Your task to perform on an android device: turn on bluetooth scan Image 0: 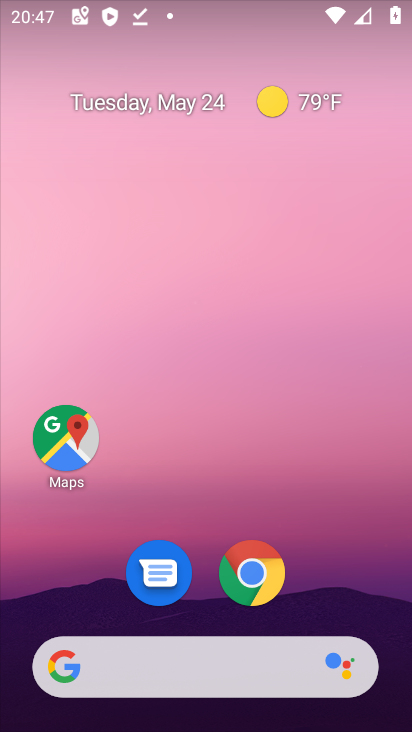
Step 0: drag from (291, 666) to (127, 172)
Your task to perform on an android device: turn on bluetooth scan Image 1: 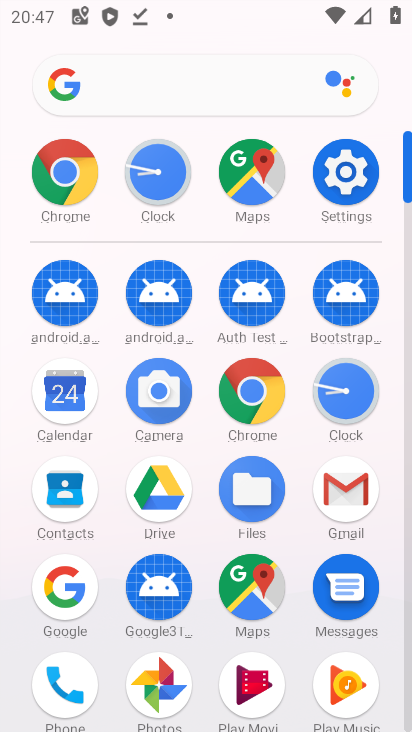
Step 1: click (334, 188)
Your task to perform on an android device: turn on bluetooth scan Image 2: 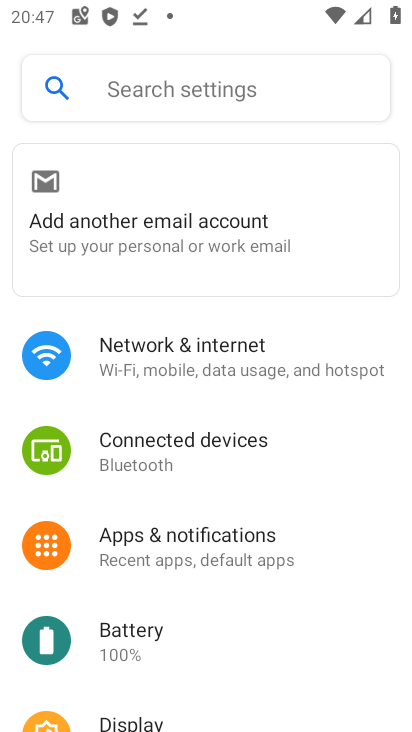
Step 2: press back button
Your task to perform on an android device: turn on bluetooth scan Image 3: 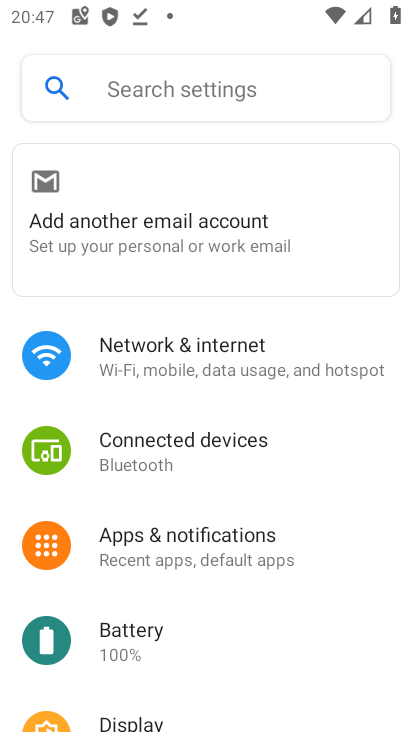
Step 3: press back button
Your task to perform on an android device: turn on bluetooth scan Image 4: 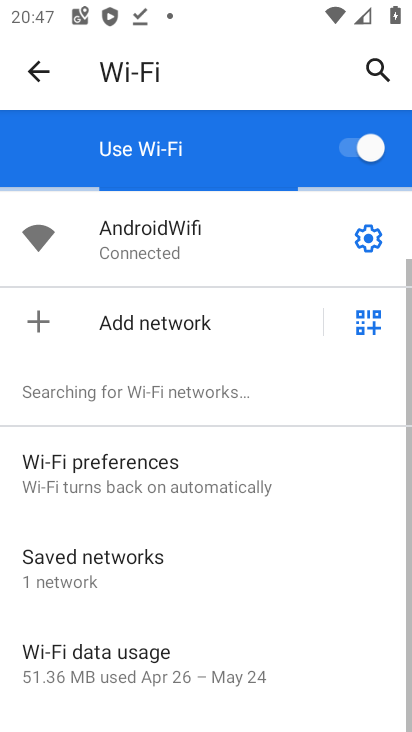
Step 4: press back button
Your task to perform on an android device: turn on bluetooth scan Image 5: 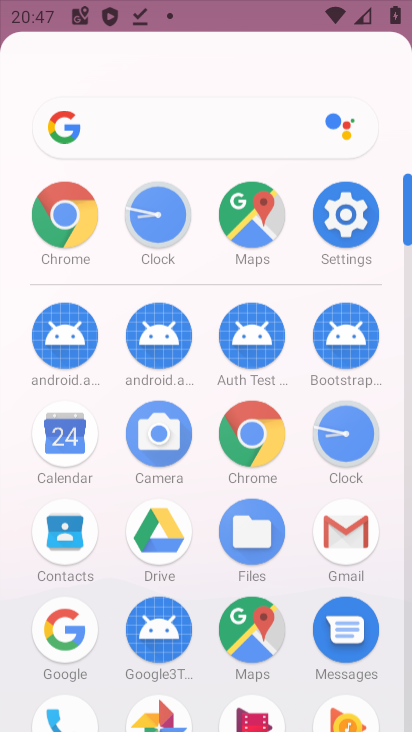
Step 5: press back button
Your task to perform on an android device: turn on bluetooth scan Image 6: 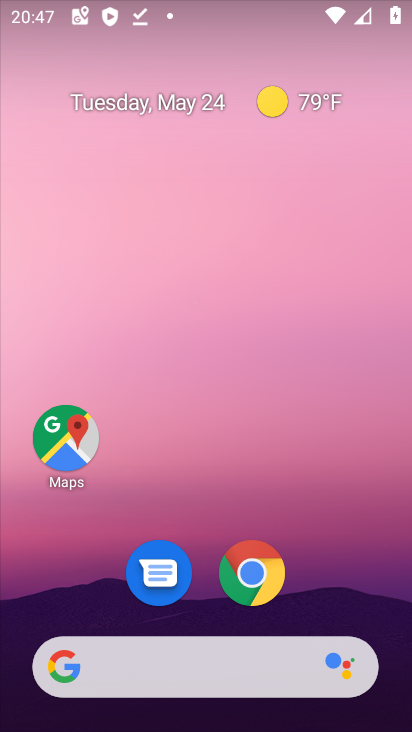
Step 6: drag from (302, 655) to (270, 266)
Your task to perform on an android device: turn on bluetooth scan Image 7: 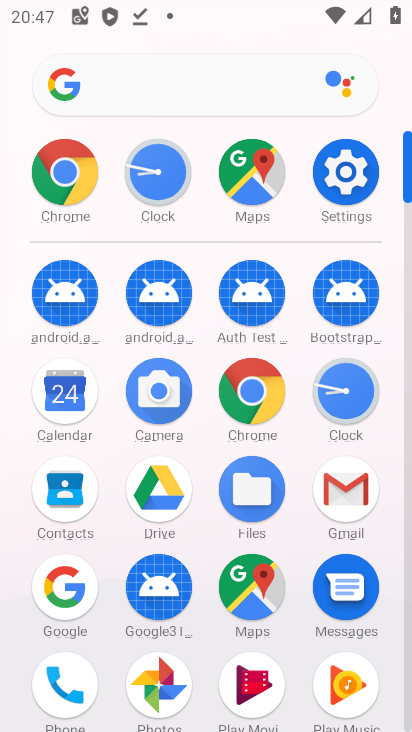
Step 7: click (63, 166)
Your task to perform on an android device: turn on bluetooth scan Image 8: 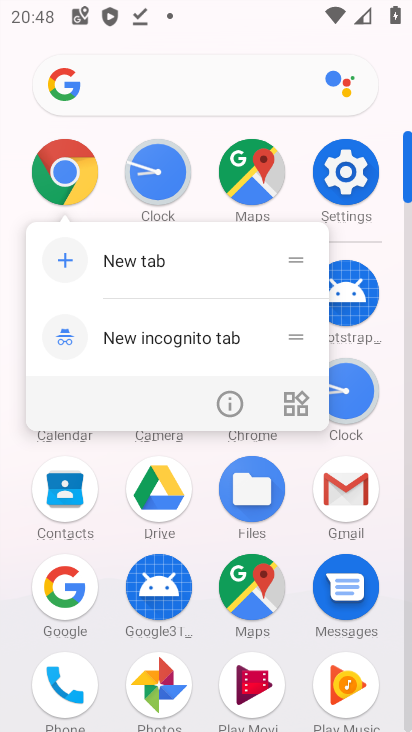
Step 8: click (74, 171)
Your task to perform on an android device: turn on bluetooth scan Image 9: 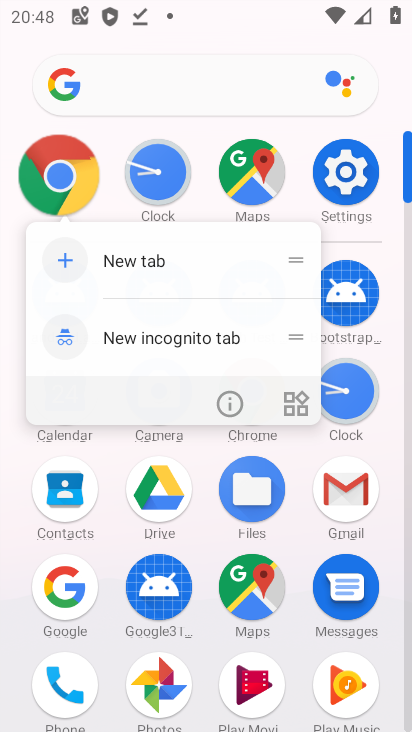
Step 9: click (77, 173)
Your task to perform on an android device: turn on bluetooth scan Image 10: 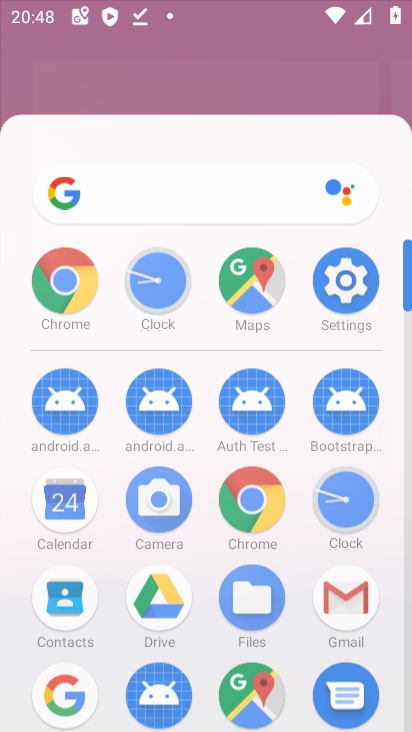
Step 10: click (77, 173)
Your task to perform on an android device: turn on bluetooth scan Image 11: 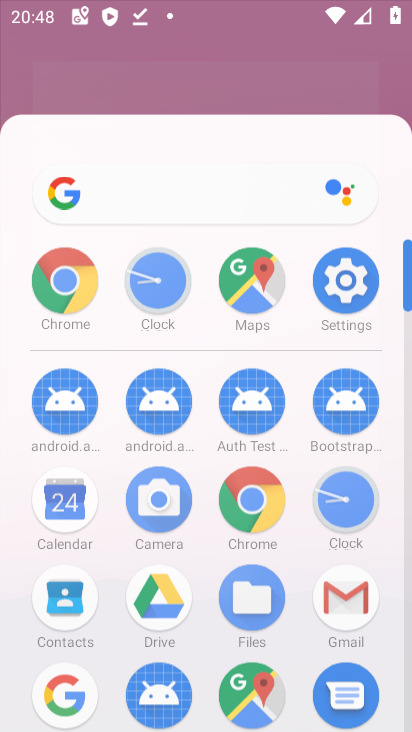
Step 11: click (77, 173)
Your task to perform on an android device: turn on bluetooth scan Image 12: 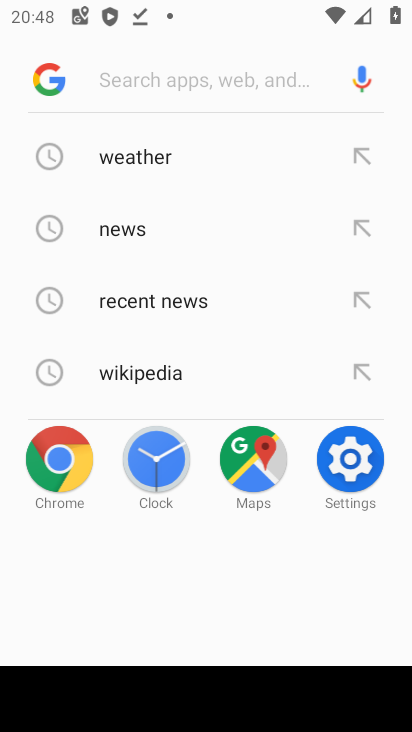
Step 12: press back button
Your task to perform on an android device: turn on bluetooth scan Image 13: 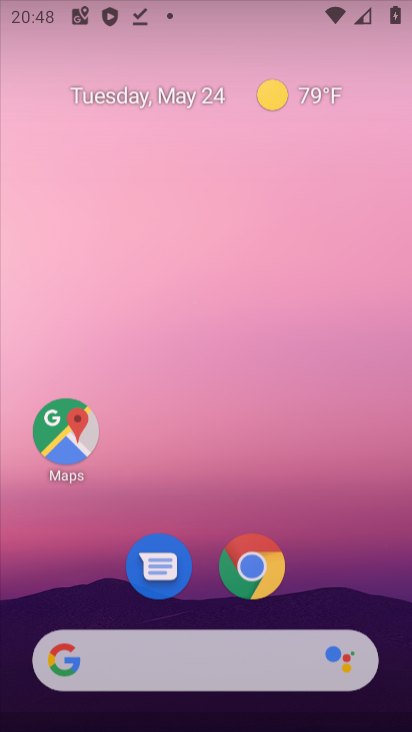
Step 13: press back button
Your task to perform on an android device: turn on bluetooth scan Image 14: 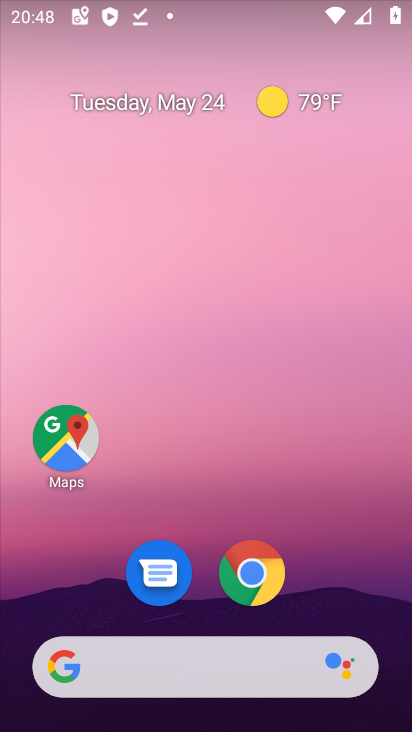
Step 14: press back button
Your task to perform on an android device: turn on bluetooth scan Image 15: 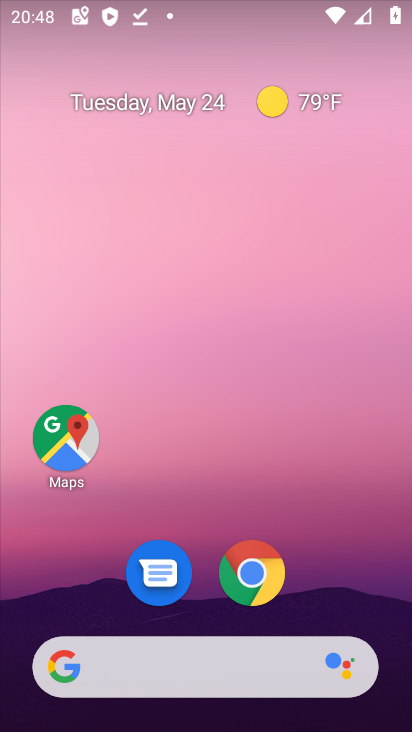
Step 15: press back button
Your task to perform on an android device: turn on bluetooth scan Image 16: 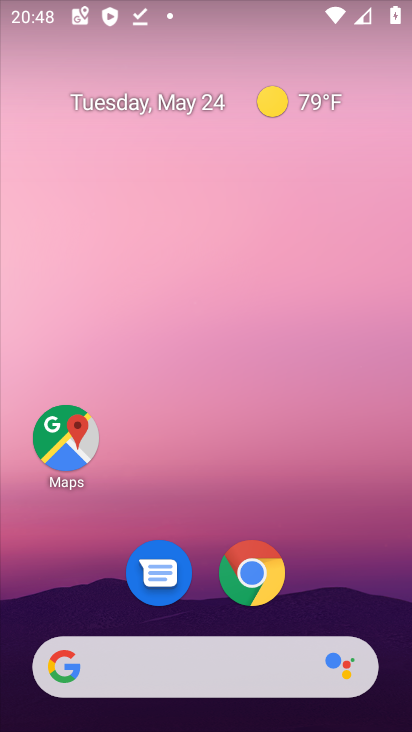
Step 16: drag from (291, 583) to (139, 96)
Your task to perform on an android device: turn on bluetooth scan Image 17: 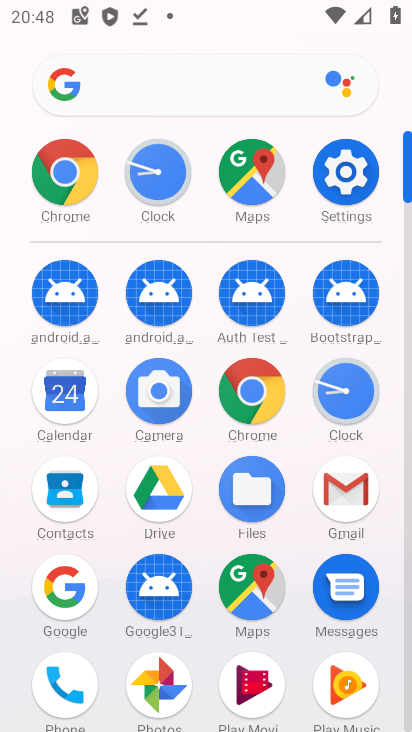
Step 17: click (343, 174)
Your task to perform on an android device: turn on bluetooth scan Image 18: 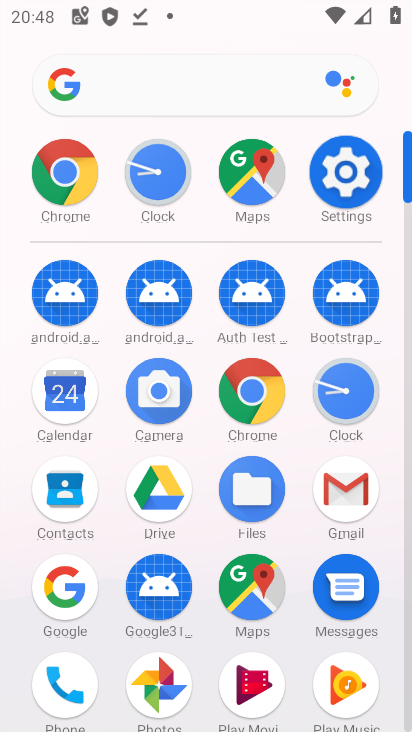
Step 18: click (343, 173)
Your task to perform on an android device: turn on bluetooth scan Image 19: 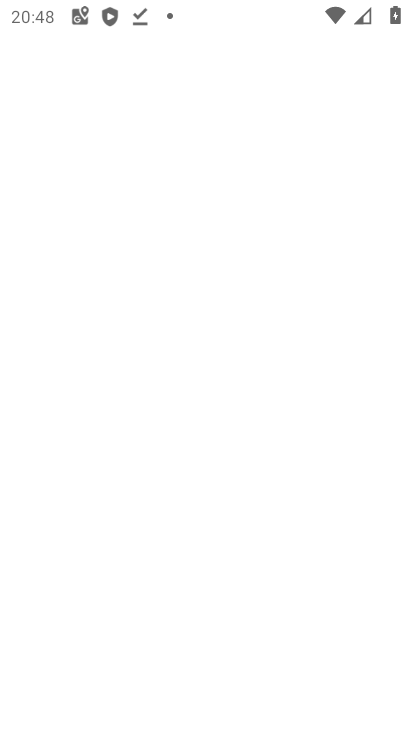
Step 19: click (348, 171)
Your task to perform on an android device: turn on bluetooth scan Image 20: 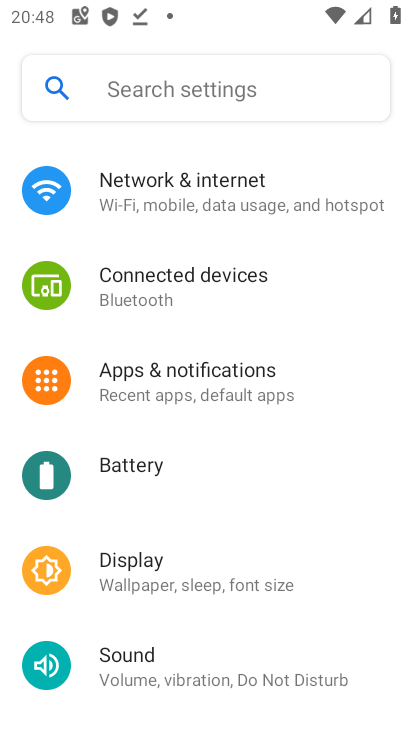
Step 20: click (348, 171)
Your task to perform on an android device: turn on bluetooth scan Image 21: 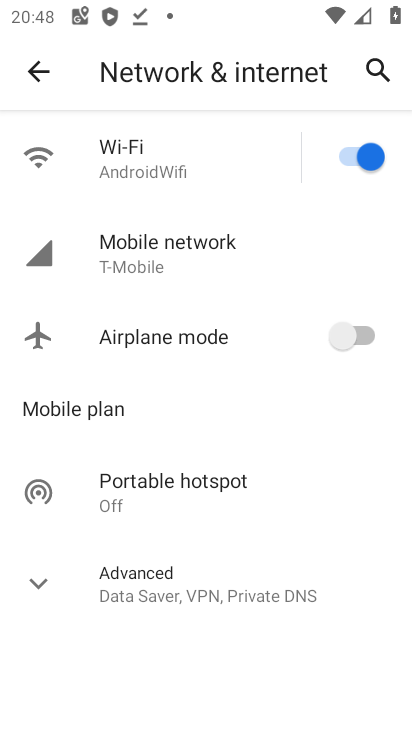
Step 21: click (47, 64)
Your task to perform on an android device: turn on bluetooth scan Image 22: 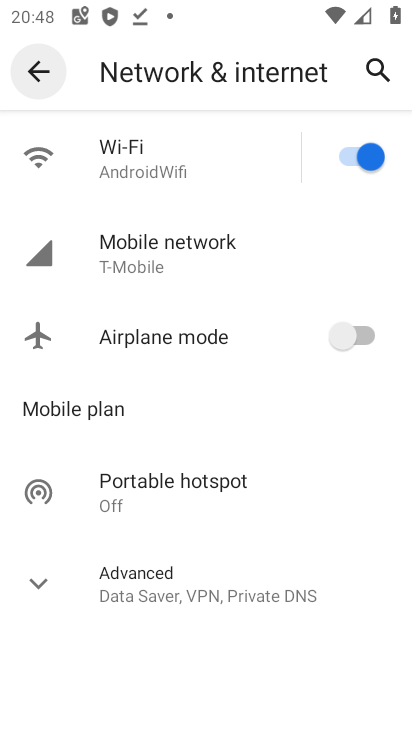
Step 22: click (47, 64)
Your task to perform on an android device: turn on bluetooth scan Image 23: 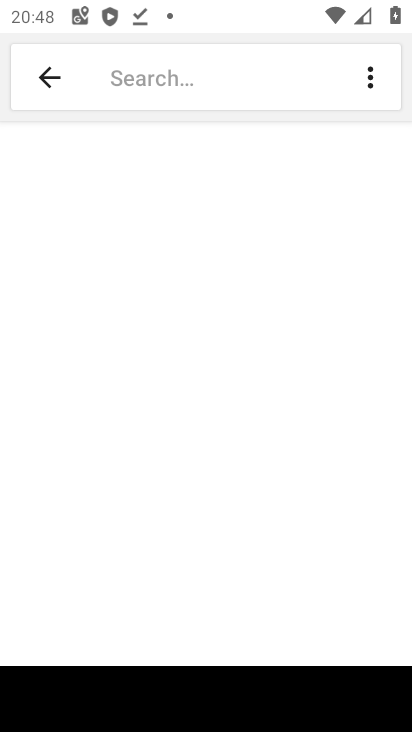
Step 23: click (47, 77)
Your task to perform on an android device: turn on bluetooth scan Image 24: 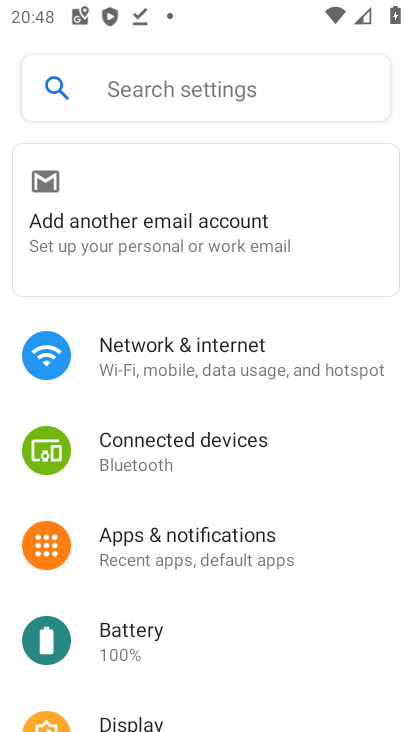
Step 24: drag from (206, 653) to (227, 286)
Your task to perform on an android device: turn on bluetooth scan Image 25: 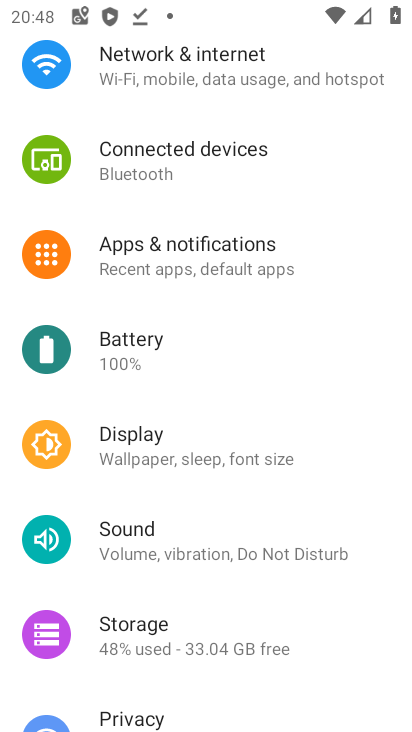
Step 25: drag from (253, 511) to (252, 267)
Your task to perform on an android device: turn on bluetooth scan Image 26: 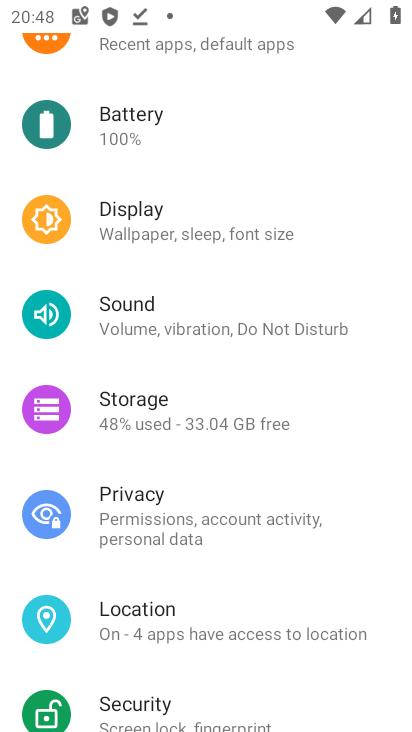
Step 26: drag from (180, 190) to (282, 576)
Your task to perform on an android device: turn on bluetooth scan Image 27: 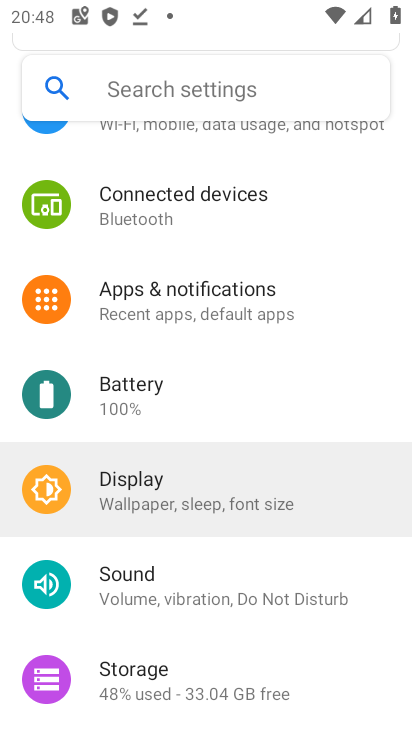
Step 27: drag from (231, 239) to (284, 661)
Your task to perform on an android device: turn on bluetooth scan Image 28: 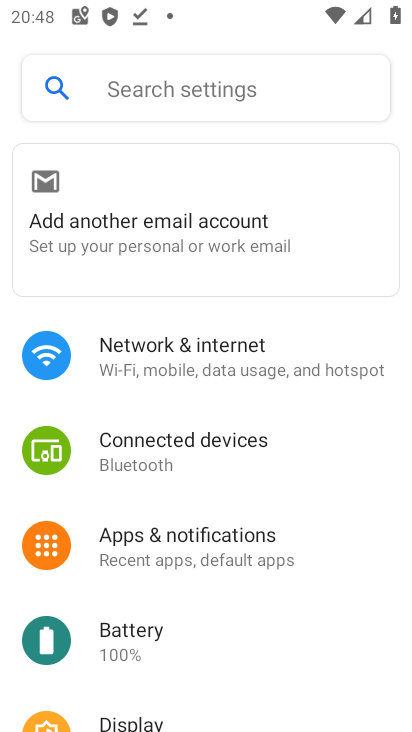
Step 28: drag from (209, 615) to (226, 322)
Your task to perform on an android device: turn on bluetooth scan Image 29: 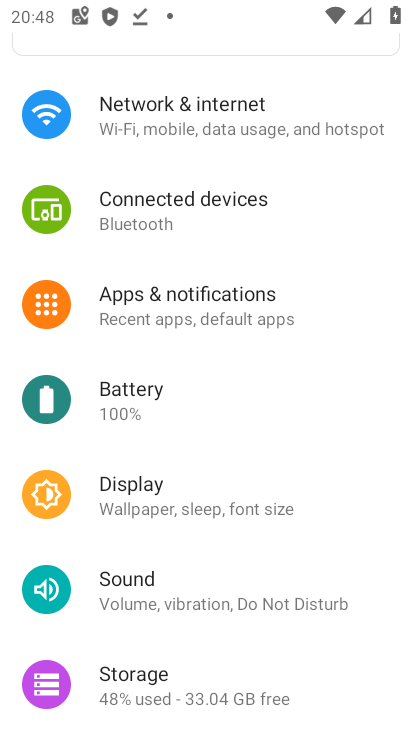
Step 29: drag from (247, 520) to (233, 130)
Your task to perform on an android device: turn on bluetooth scan Image 30: 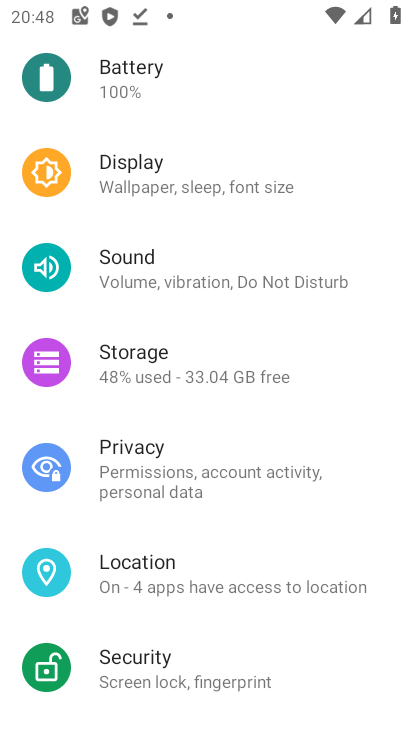
Step 30: click (167, 569)
Your task to perform on an android device: turn on bluetooth scan Image 31: 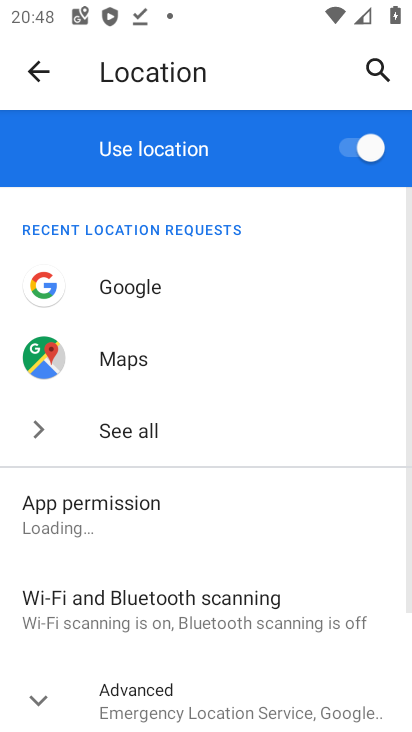
Step 31: drag from (188, 514) to (217, 170)
Your task to perform on an android device: turn on bluetooth scan Image 32: 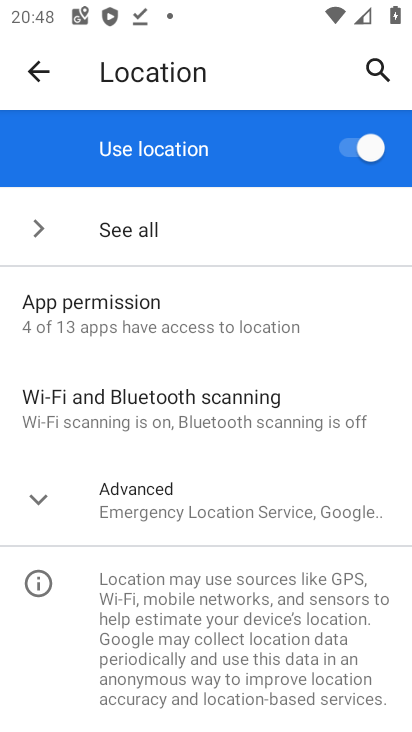
Step 32: click (166, 407)
Your task to perform on an android device: turn on bluetooth scan Image 33: 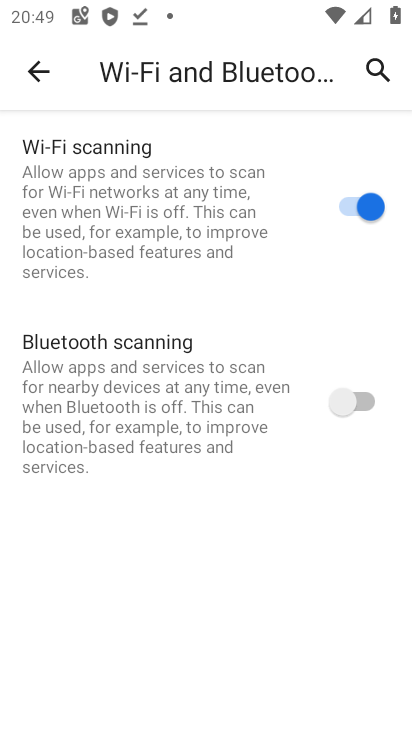
Step 33: click (333, 402)
Your task to perform on an android device: turn on bluetooth scan Image 34: 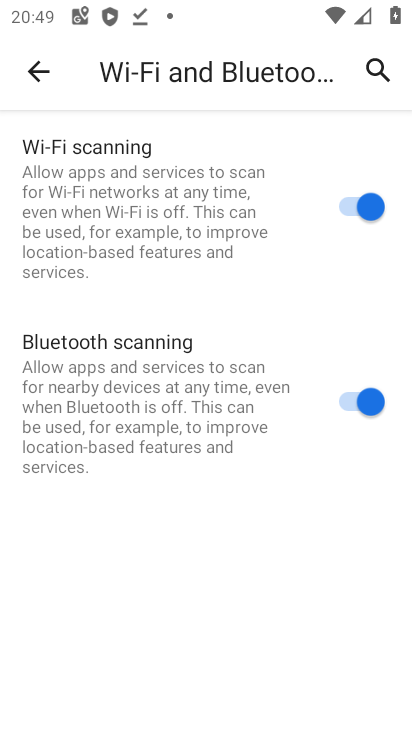
Step 34: task complete